Your task to perform on an android device: Open calendar and show me the fourth week of next month Image 0: 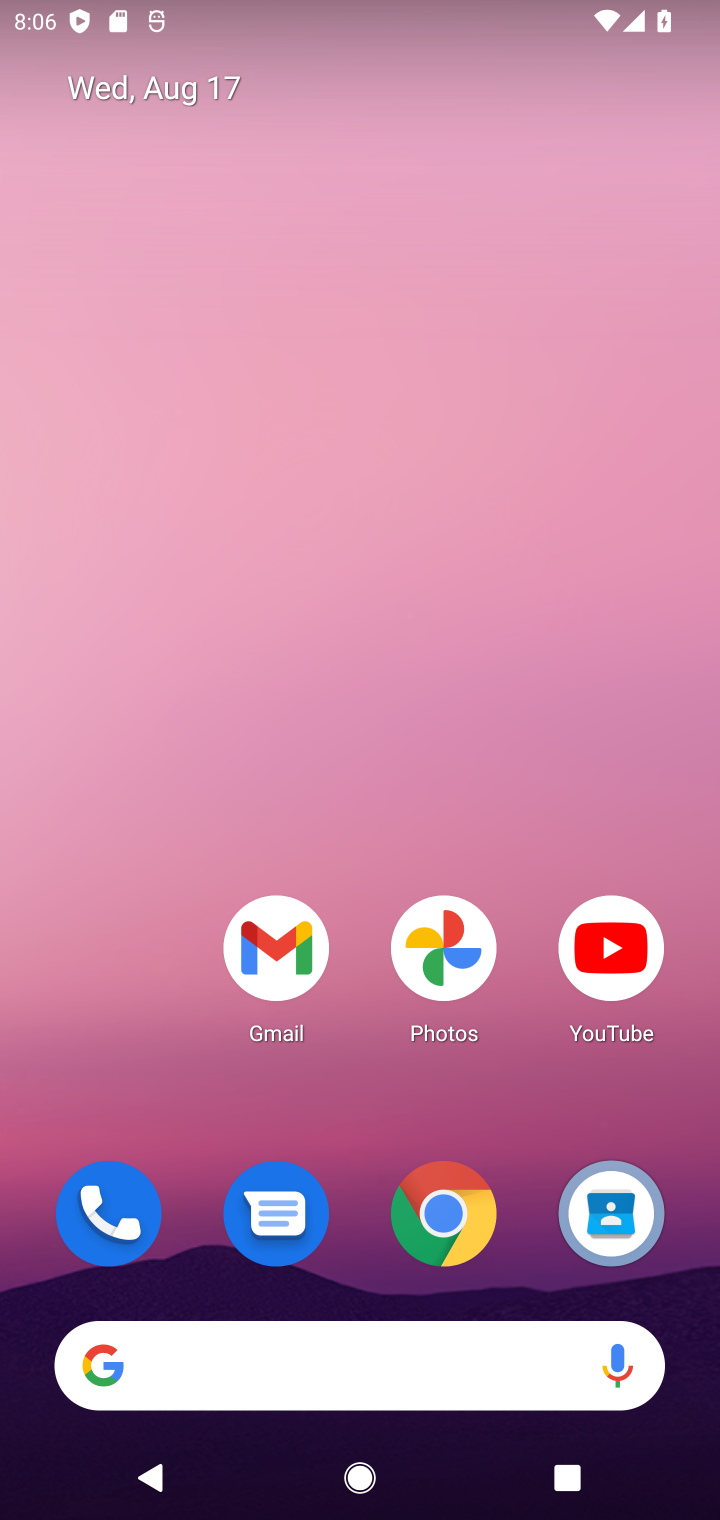
Step 0: task complete